Your task to perform on an android device: What's the weather going to be tomorrow? Image 0: 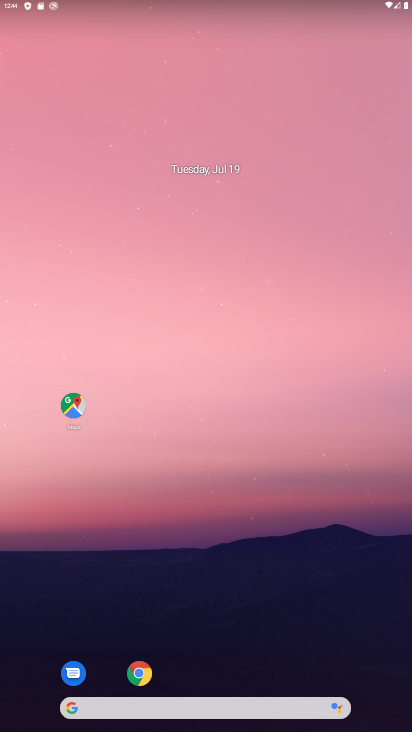
Step 0: drag from (228, 625) to (216, 50)
Your task to perform on an android device: What's the weather going to be tomorrow? Image 1: 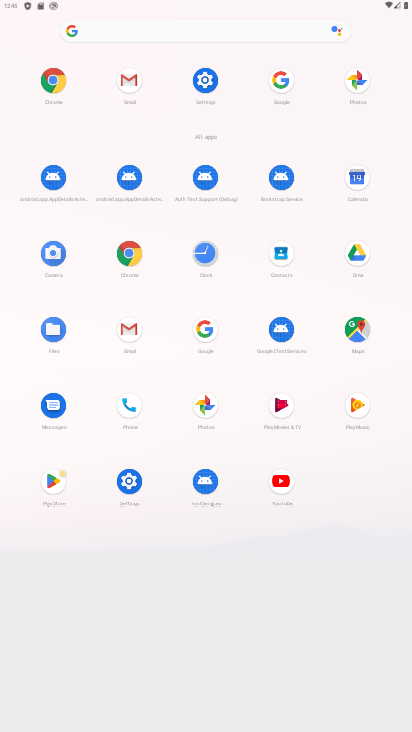
Step 1: click (208, 326)
Your task to perform on an android device: What's the weather going to be tomorrow? Image 2: 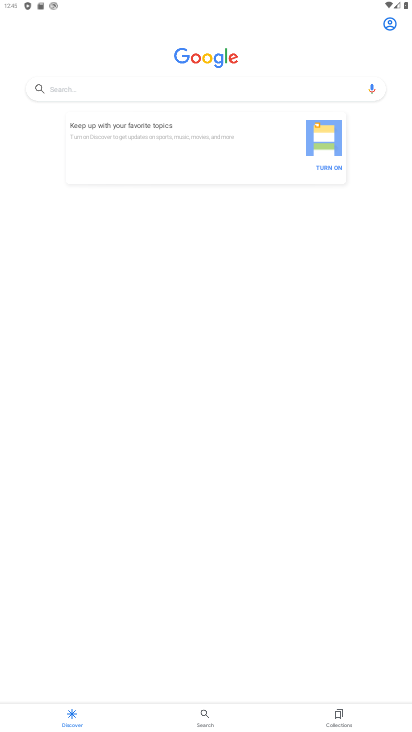
Step 2: drag from (150, 92) to (106, 92)
Your task to perform on an android device: What's the weather going to be tomorrow? Image 3: 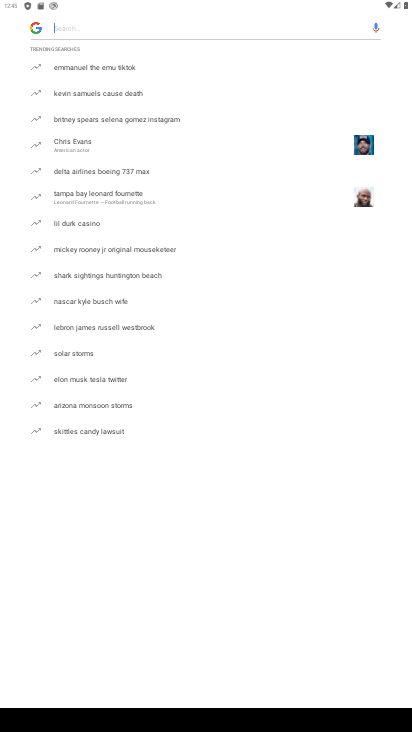
Step 3: type " weather"
Your task to perform on an android device: What's the weather going to be tomorrow? Image 4: 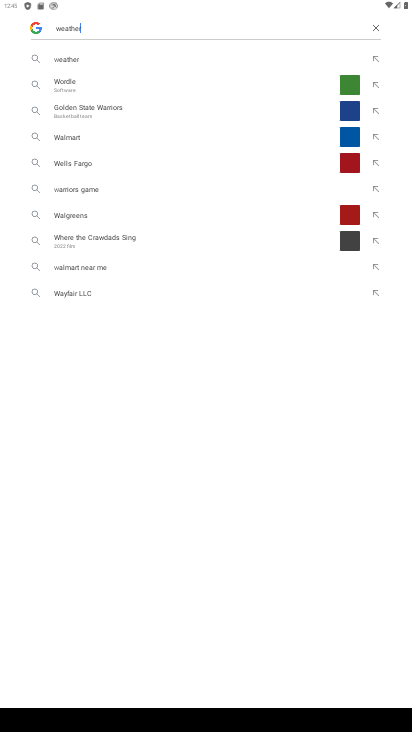
Step 4: type ""
Your task to perform on an android device: What's the weather going to be tomorrow? Image 5: 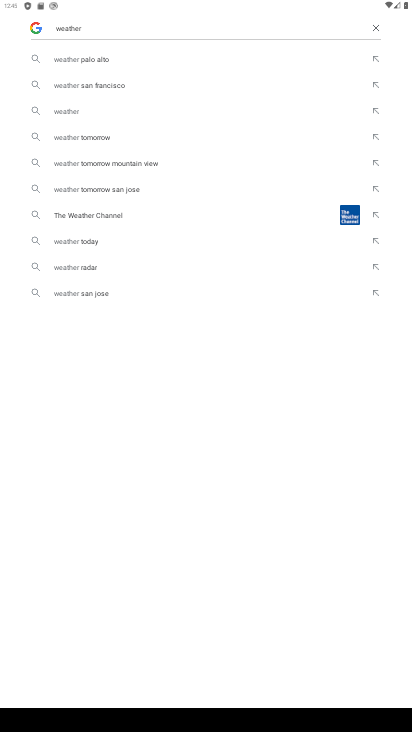
Step 5: click (71, 105)
Your task to perform on an android device: What's the weather going to be tomorrow? Image 6: 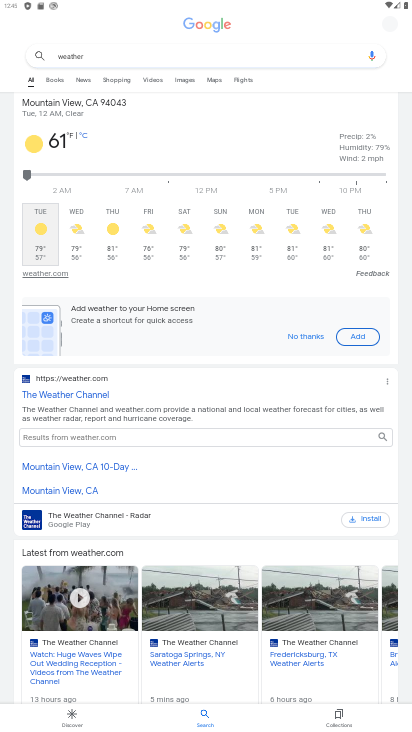
Step 6: click (78, 243)
Your task to perform on an android device: What's the weather going to be tomorrow? Image 7: 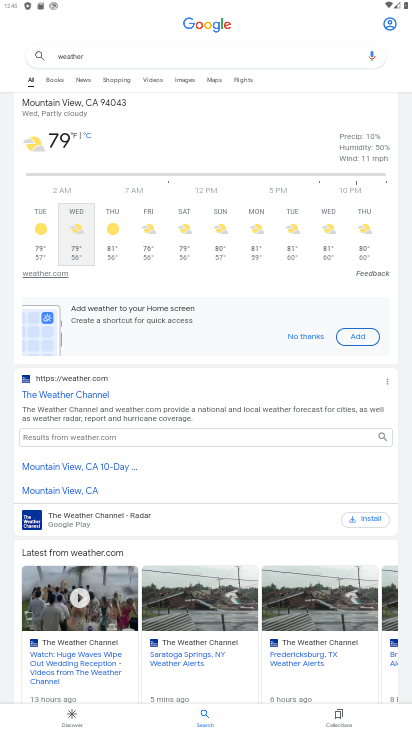
Step 7: task complete